Your task to perform on an android device: Open Google Image 0: 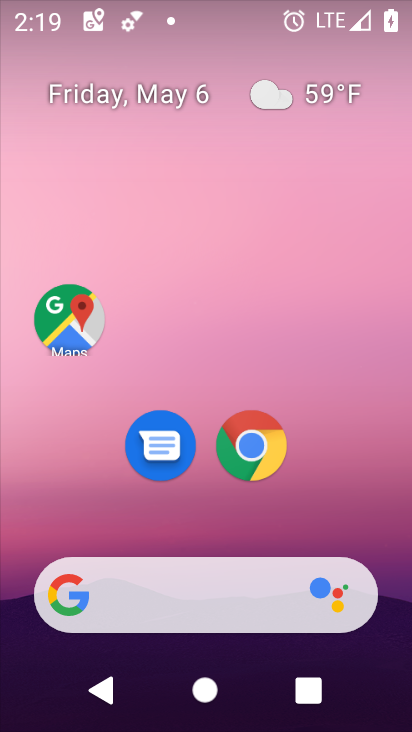
Step 0: drag from (338, 514) to (338, 6)
Your task to perform on an android device: Open Google Image 1: 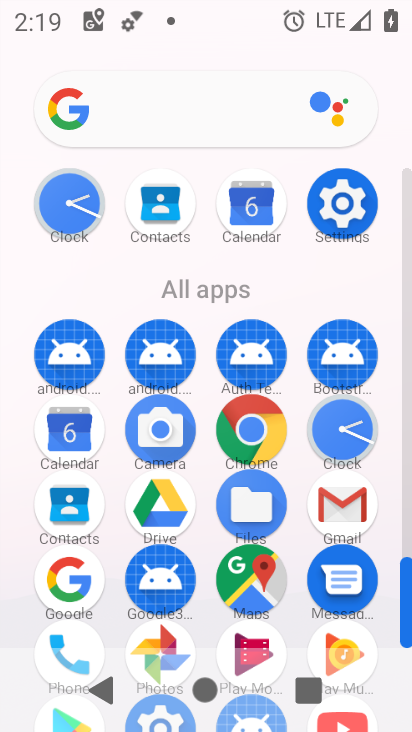
Step 1: click (68, 592)
Your task to perform on an android device: Open Google Image 2: 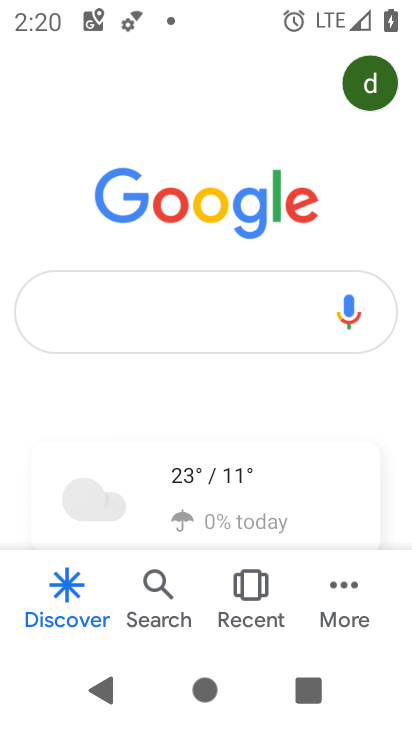
Step 2: task complete